Your task to perform on an android device: turn on wifi Image 0: 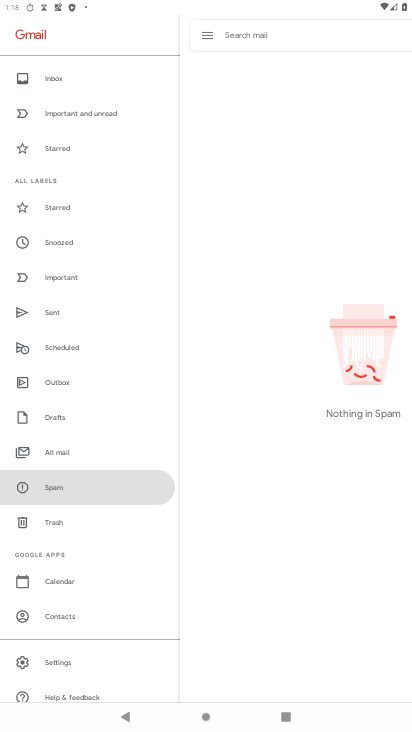
Step 0: press home button
Your task to perform on an android device: turn on wifi Image 1: 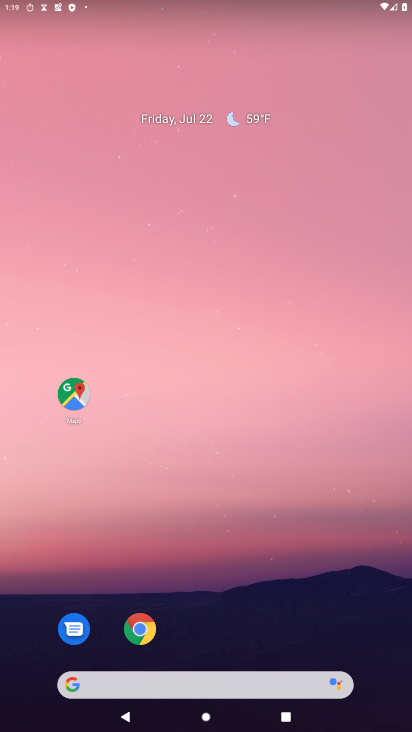
Step 1: drag from (218, 568) to (174, 6)
Your task to perform on an android device: turn on wifi Image 2: 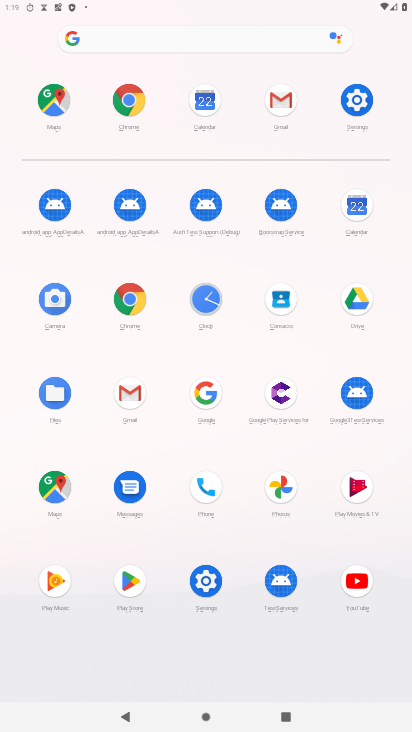
Step 2: click (362, 103)
Your task to perform on an android device: turn on wifi Image 3: 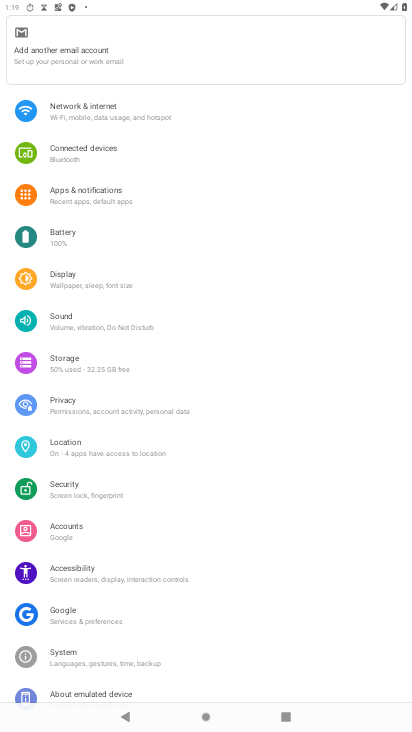
Step 3: click (125, 120)
Your task to perform on an android device: turn on wifi Image 4: 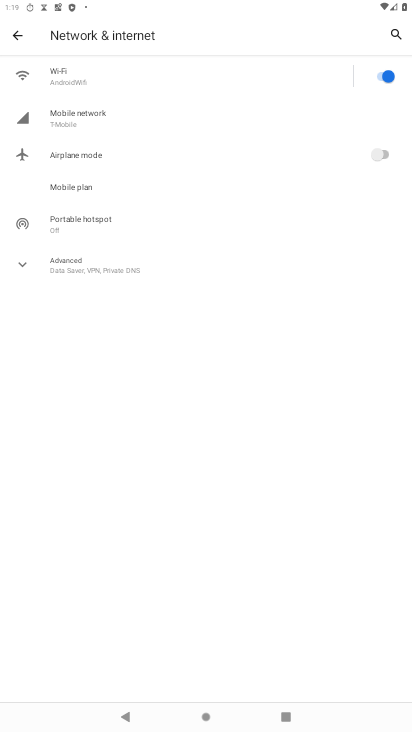
Step 4: task complete